Your task to perform on an android device: change the clock display to show seconds Image 0: 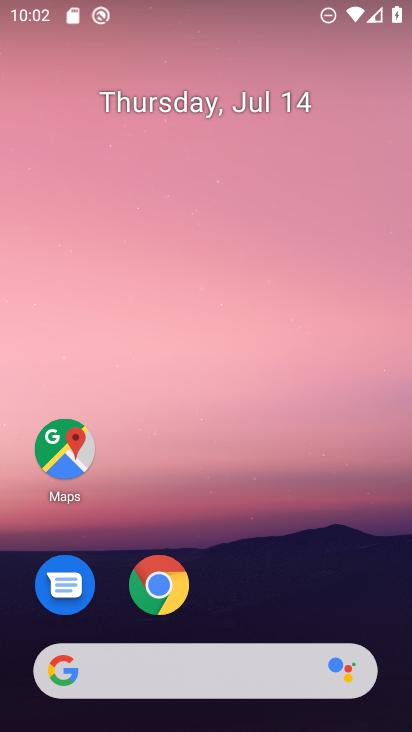
Step 0: drag from (237, 641) to (57, 204)
Your task to perform on an android device: change the clock display to show seconds Image 1: 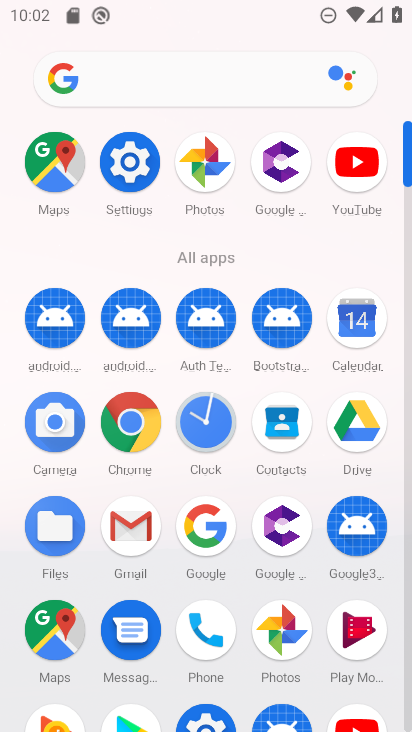
Step 1: click (211, 421)
Your task to perform on an android device: change the clock display to show seconds Image 2: 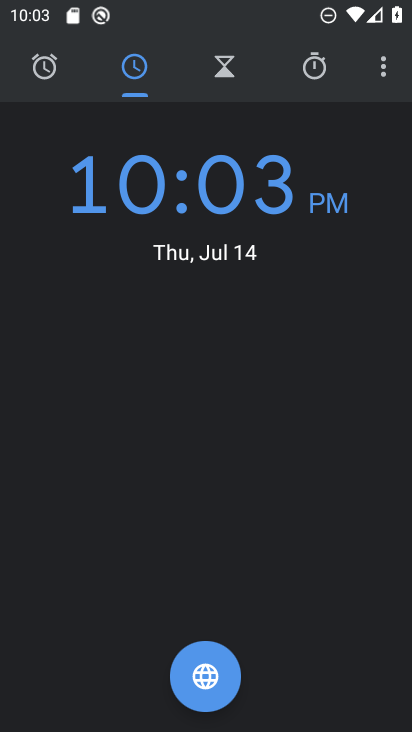
Step 2: click (379, 71)
Your task to perform on an android device: change the clock display to show seconds Image 3: 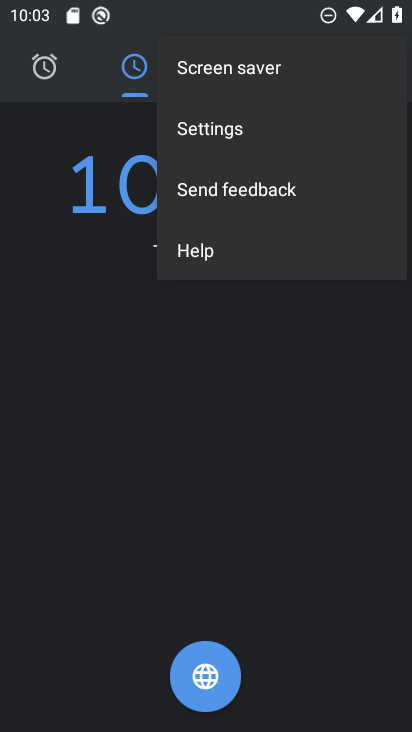
Step 3: click (231, 129)
Your task to perform on an android device: change the clock display to show seconds Image 4: 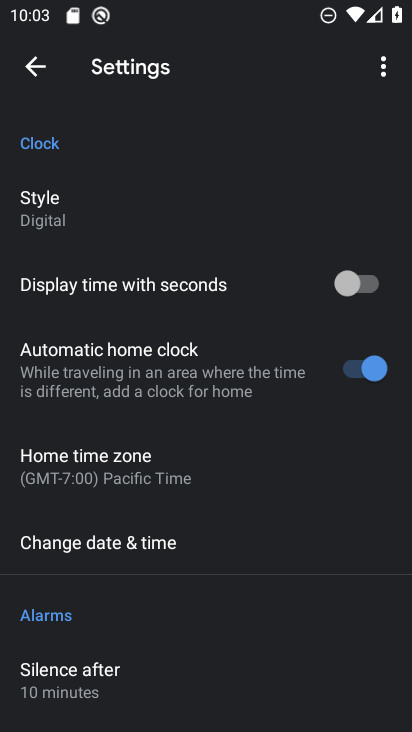
Step 4: click (356, 295)
Your task to perform on an android device: change the clock display to show seconds Image 5: 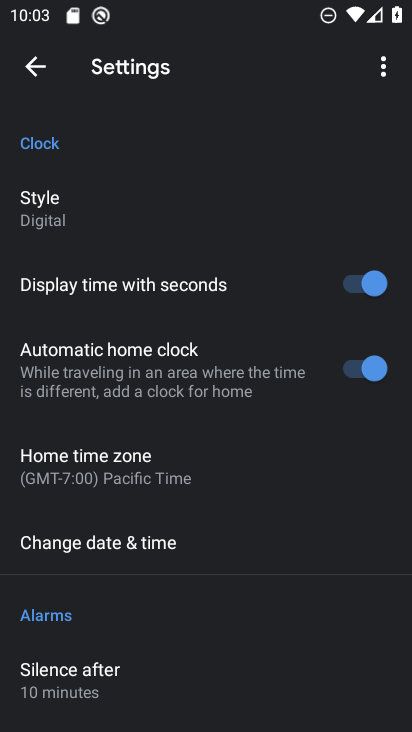
Step 5: task complete